Your task to perform on an android device: turn off location history Image 0: 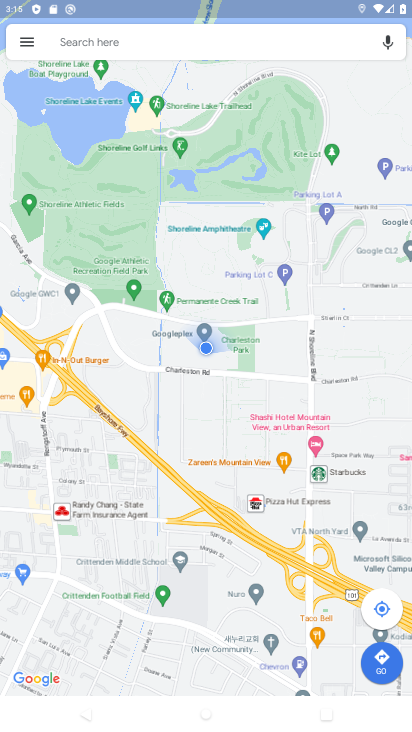
Step 0: press home button
Your task to perform on an android device: turn off location history Image 1: 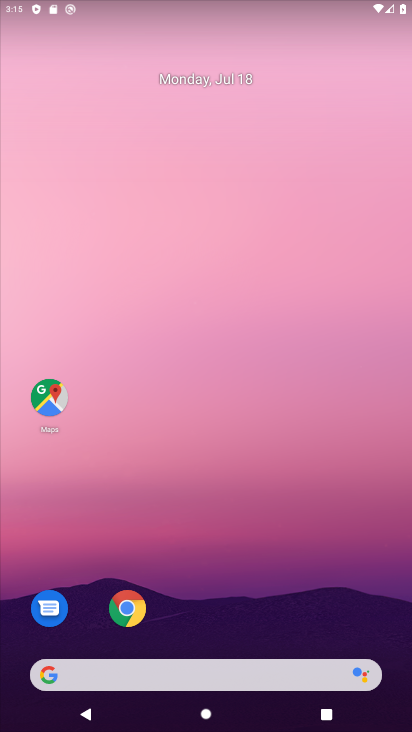
Step 1: drag from (297, 522) to (242, 166)
Your task to perform on an android device: turn off location history Image 2: 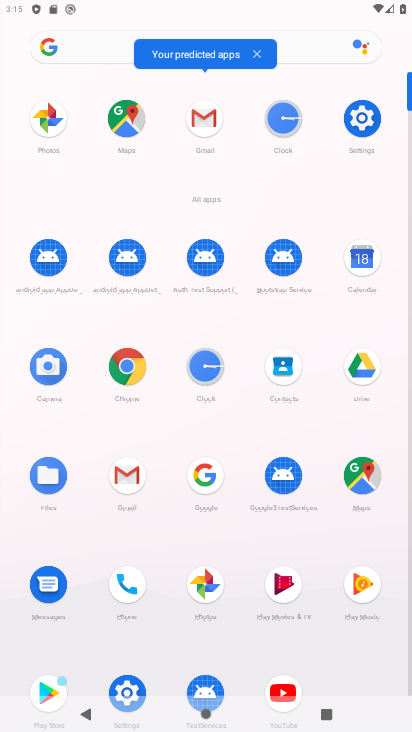
Step 2: click (359, 112)
Your task to perform on an android device: turn off location history Image 3: 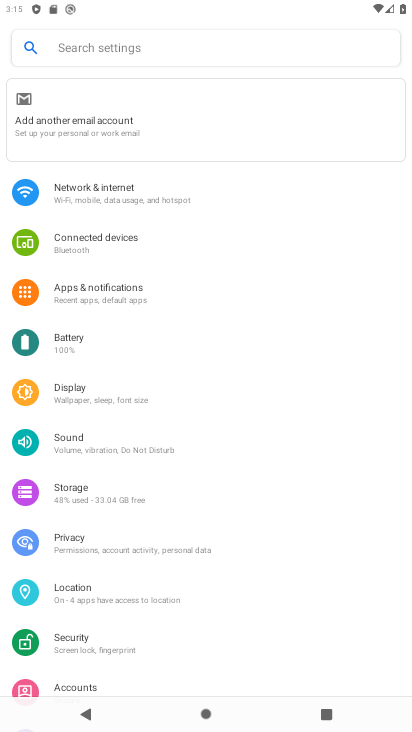
Step 3: click (90, 587)
Your task to perform on an android device: turn off location history Image 4: 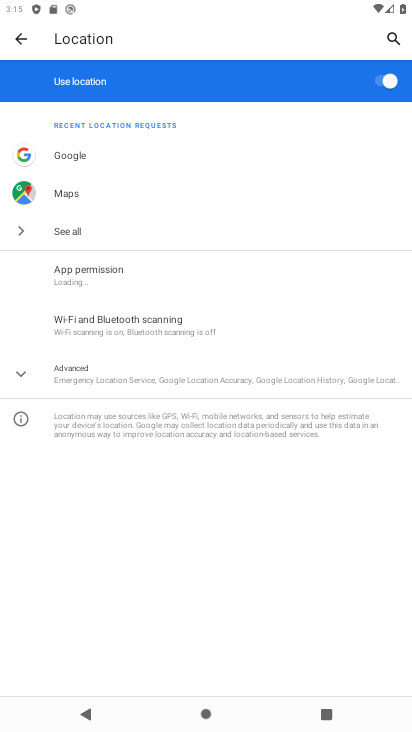
Step 4: click (383, 73)
Your task to perform on an android device: turn off location history Image 5: 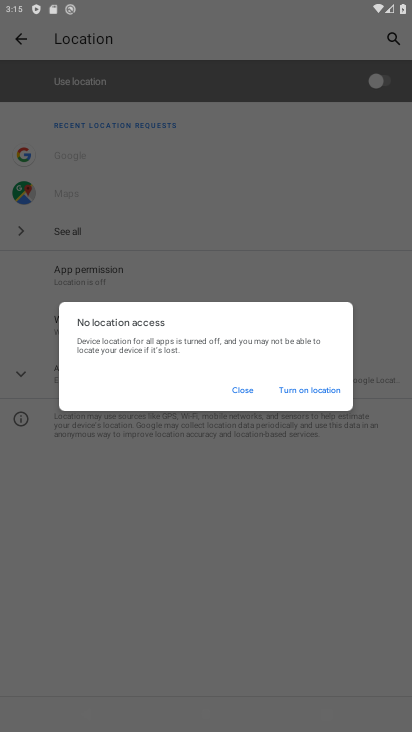
Step 5: task complete